Your task to perform on an android device: Go to Google maps Image 0: 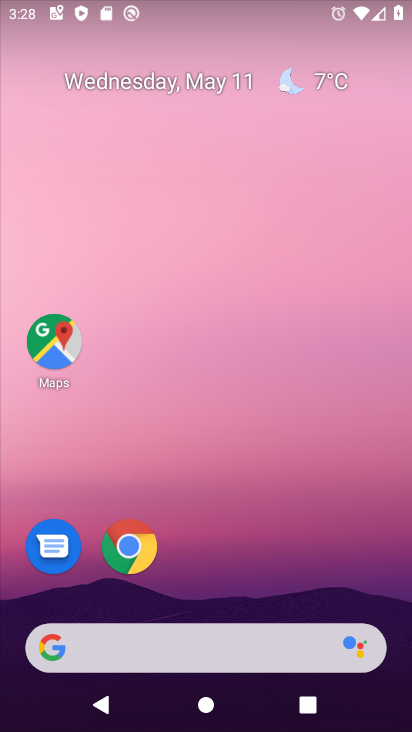
Step 0: drag from (369, 444) to (359, 42)
Your task to perform on an android device: Go to Google maps Image 1: 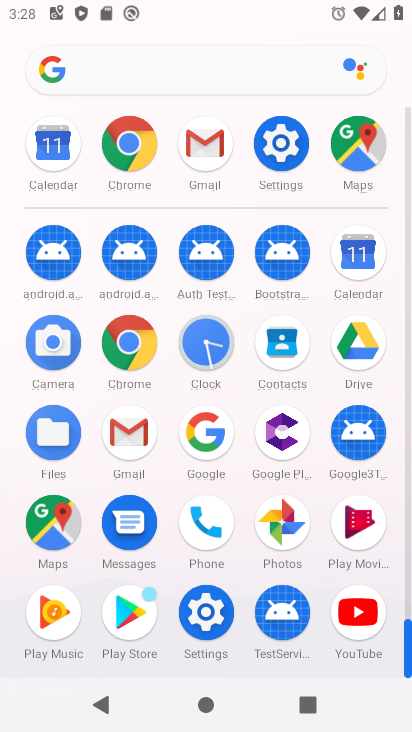
Step 1: click (65, 519)
Your task to perform on an android device: Go to Google maps Image 2: 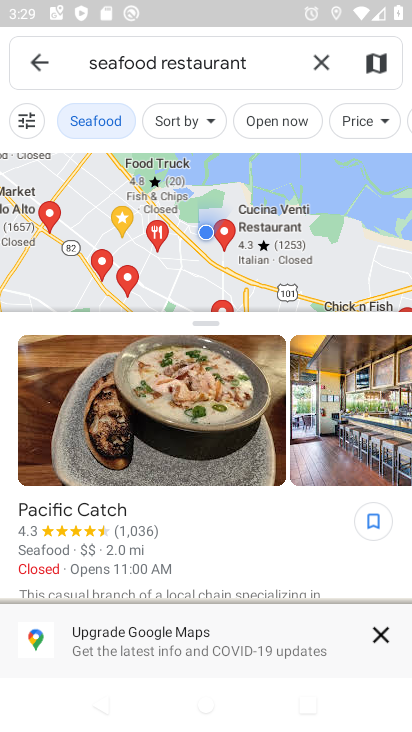
Step 2: task complete